Your task to perform on an android device: Open Google Chrome and open the bookmarks view Image 0: 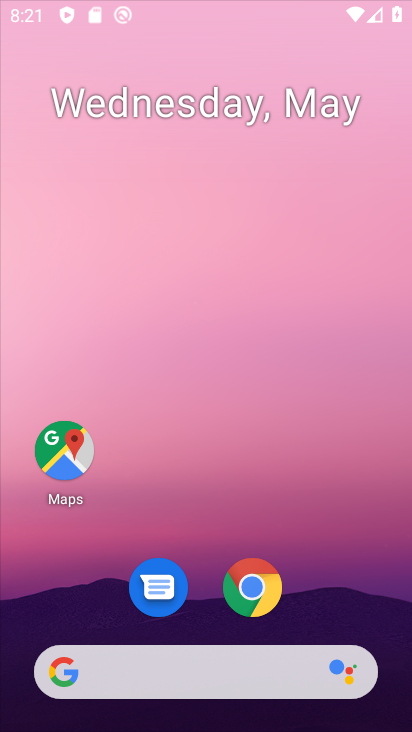
Step 0: click (271, 586)
Your task to perform on an android device: Open Google Chrome and open the bookmarks view Image 1: 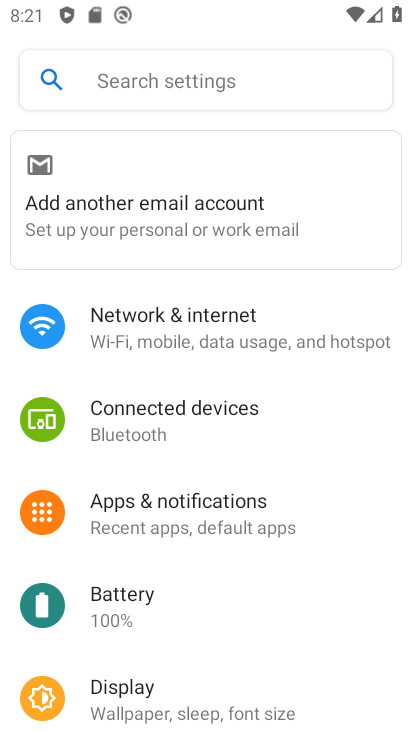
Step 1: press home button
Your task to perform on an android device: Open Google Chrome and open the bookmarks view Image 2: 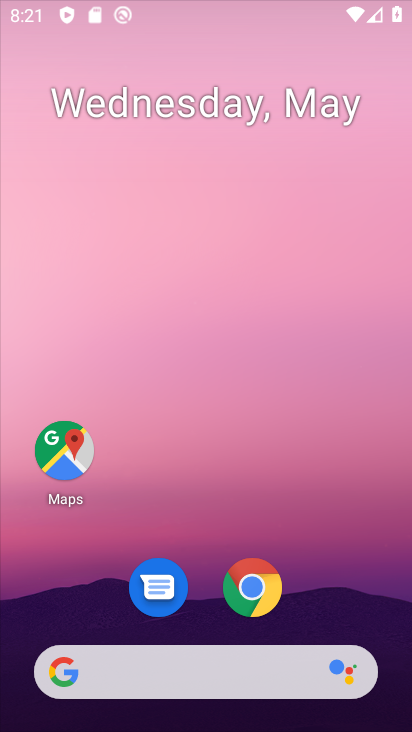
Step 2: click (250, 587)
Your task to perform on an android device: Open Google Chrome and open the bookmarks view Image 3: 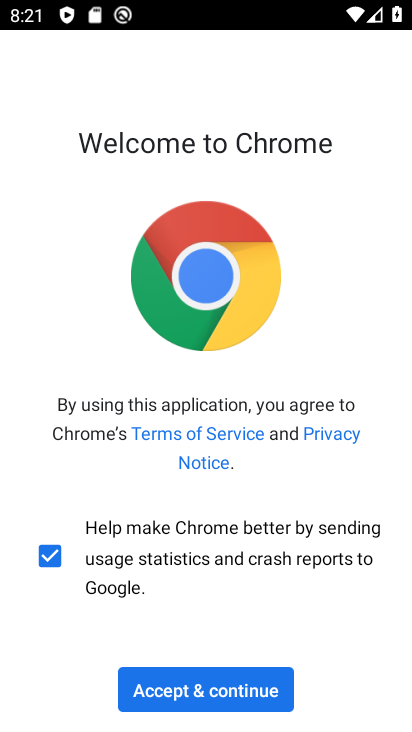
Step 3: click (220, 684)
Your task to perform on an android device: Open Google Chrome and open the bookmarks view Image 4: 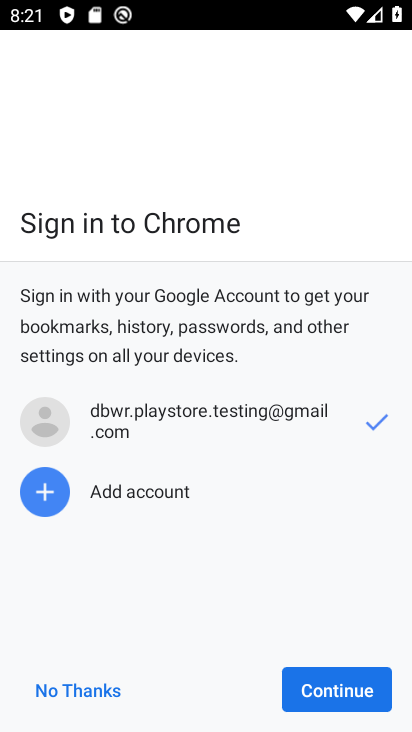
Step 4: click (323, 694)
Your task to perform on an android device: Open Google Chrome and open the bookmarks view Image 5: 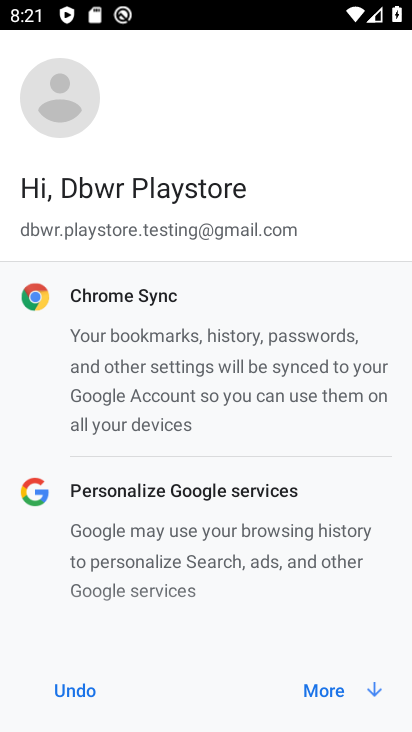
Step 5: click (322, 695)
Your task to perform on an android device: Open Google Chrome and open the bookmarks view Image 6: 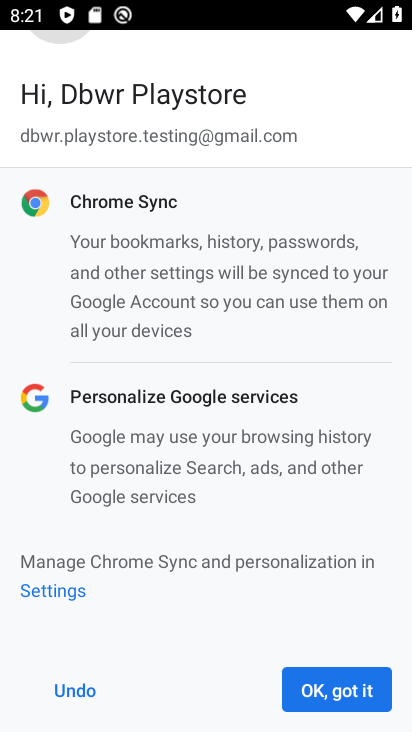
Step 6: click (322, 695)
Your task to perform on an android device: Open Google Chrome and open the bookmarks view Image 7: 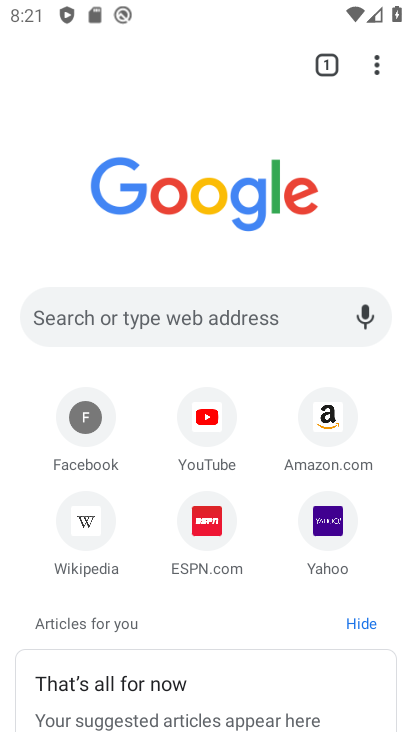
Step 7: click (378, 60)
Your task to perform on an android device: Open Google Chrome and open the bookmarks view Image 8: 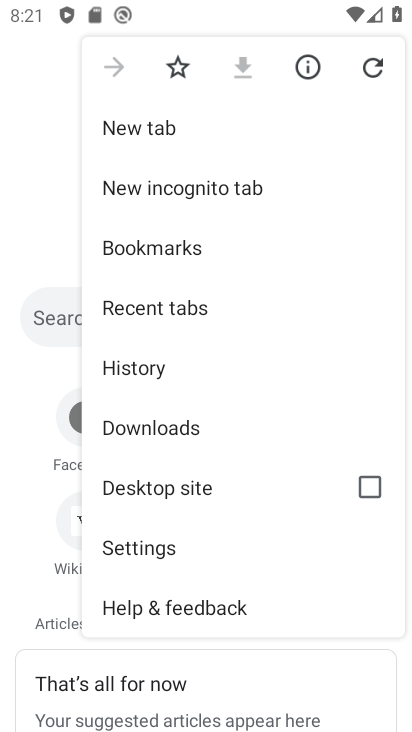
Step 8: click (152, 258)
Your task to perform on an android device: Open Google Chrome and open the bookmarks view Image 9: 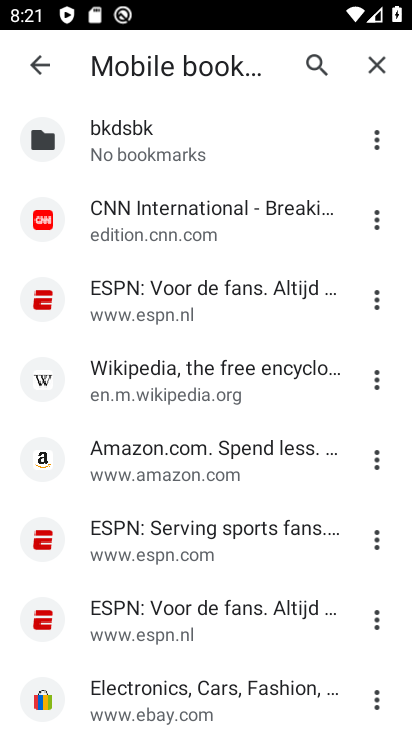
Step 9: task complete